Your task to perform on an android device: change notification settings in the gmail app Image 0: 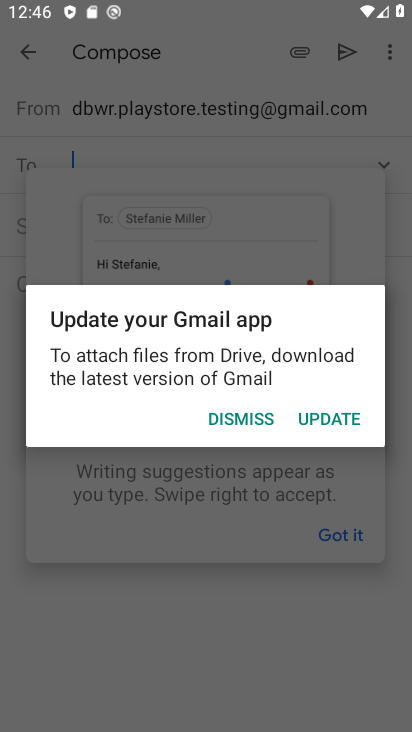
Step 0: press home button
Your task to perform on an android device: change notification settings in the gmail app Image 1: 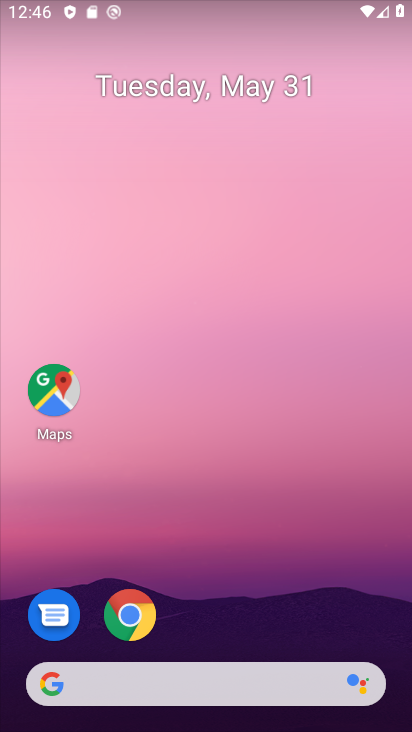
Step 1: drag from (301, 565) to (296, 222)
Your task to perform on an android device: change notification settings in the gmail app Image 2: 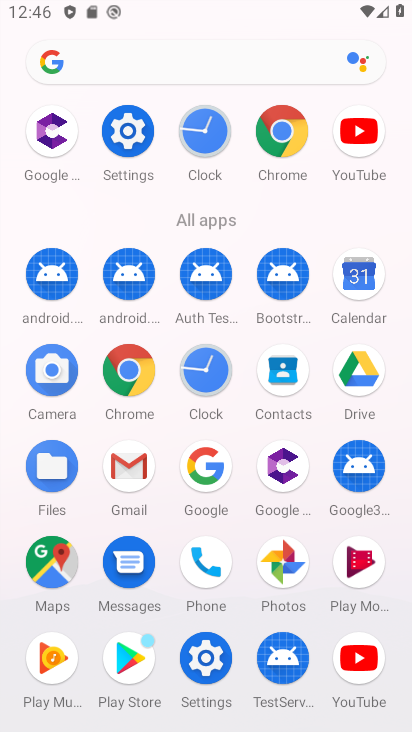
Step 2: click (141, 490)
Your task to perform on an android device: change notification settings in the gmail app Image 3: 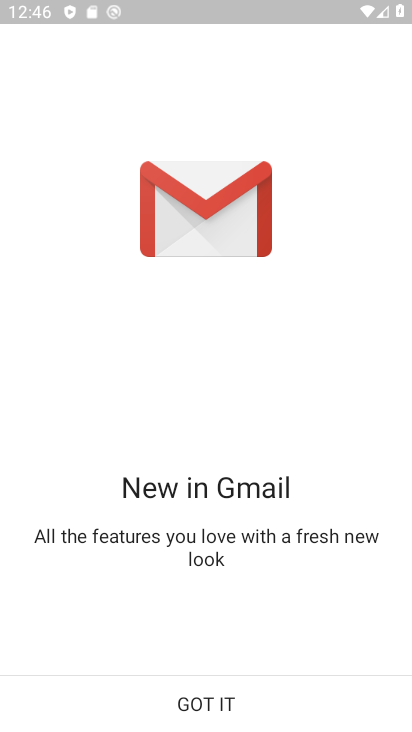
Step 3: click (221, 702)
Your task to perform on an android device: change notification settings in the gmail app Image 4: 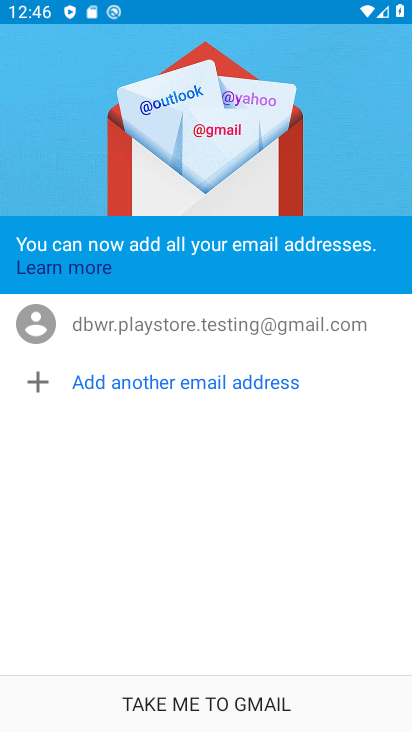
Step 4: click (221, 696)
Your task to perform on an android device: change notification settings in the gmail app Image 5: 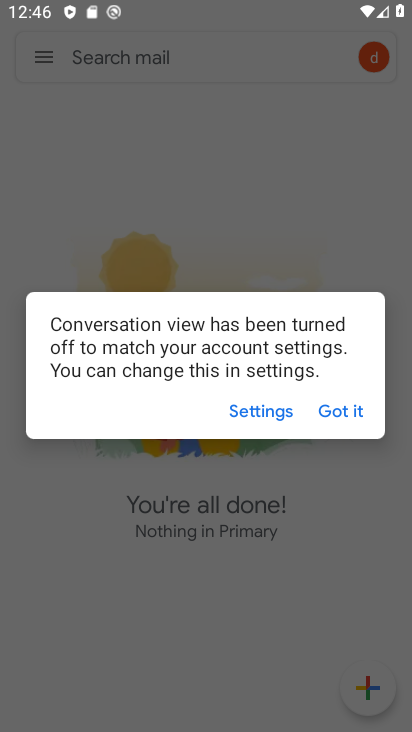
Step 5: click (354, 417)
Your task to perform on an android device: change notification settings in the gmail app Image 6: 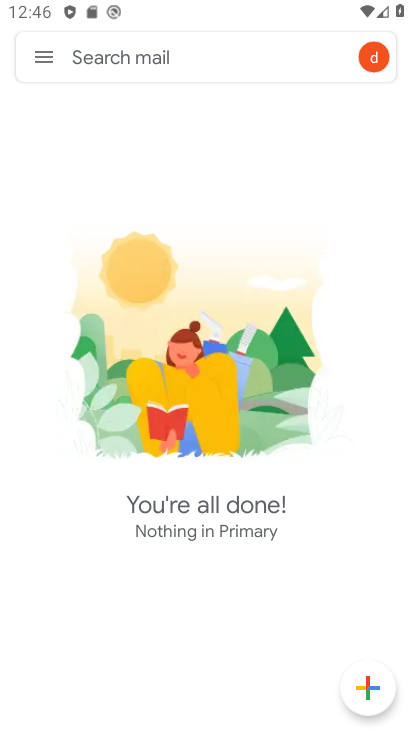
Step 6: click (39, 61)
Your task to perform on an android device: change notification settings in the gmail app Image 7: 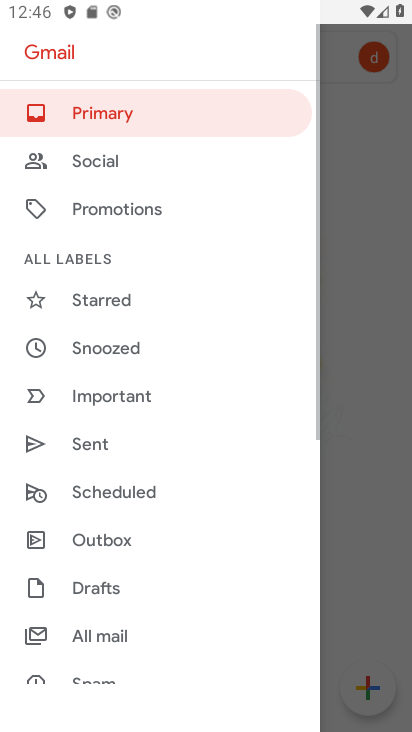
Step 7: drag from (130, 573) to (126, 275)
Your task to perform on an android device: change notification settings in the gmail app Image 8: 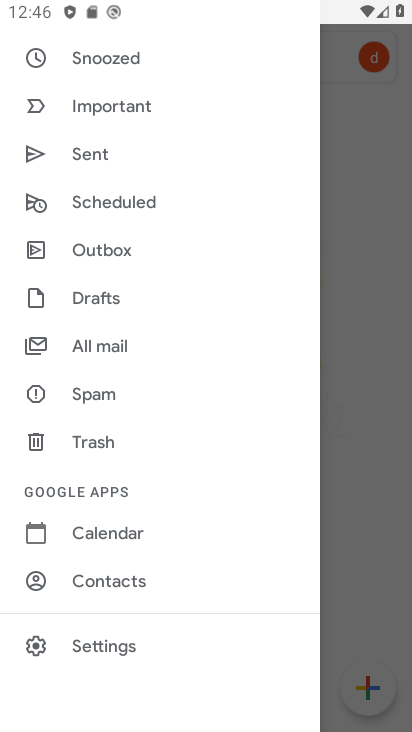
Step 8: click (131, 643)
Your task to perform on an android device: change notification settings in the gmail app Image 9: 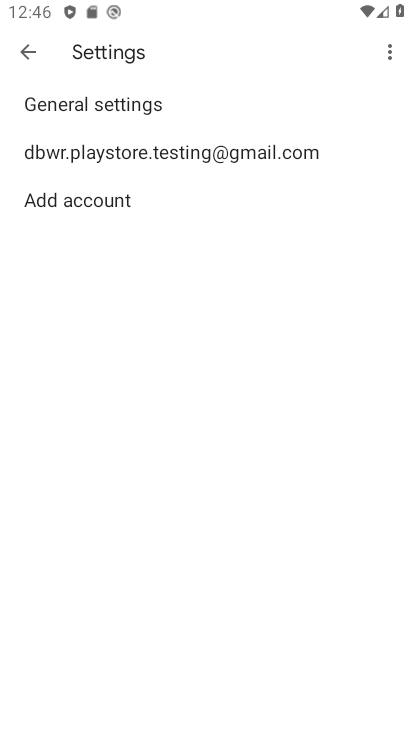
Step 9: click (178, 157)
Your task to perform on an android device: change notification settings in the gmail app Image 10: 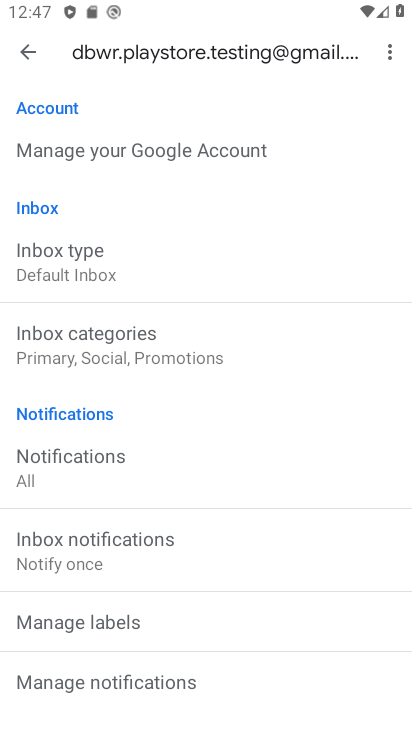
Step 10: click (98, 469)
Your task to perform on an android device: change notification settings in the gmail app Image 11: 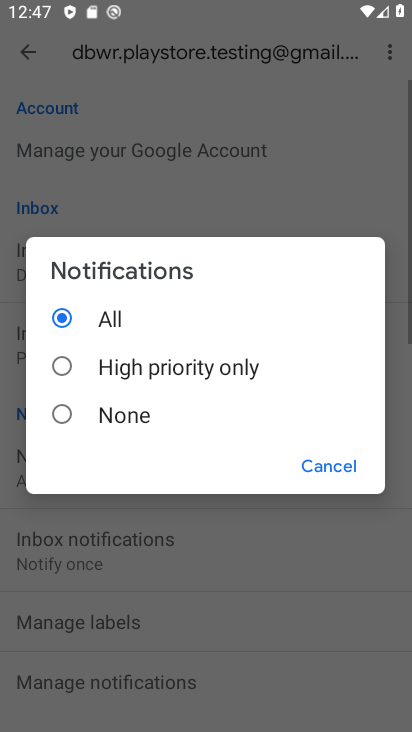
Step 11: click (146, 418)
Your task to perform on an android device: change notification settings in the gmail app Image 12: 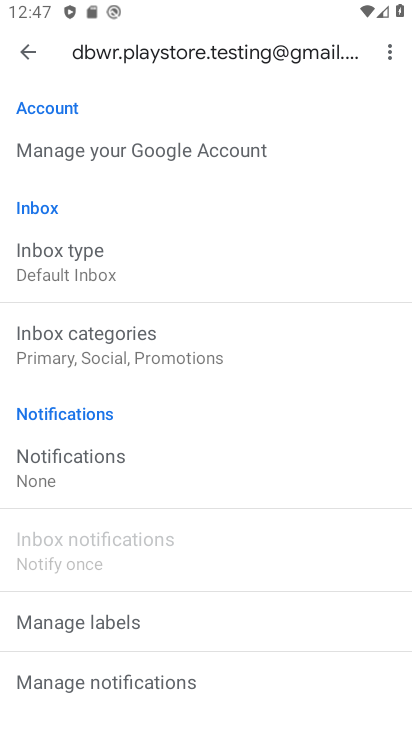
Step 12: task complete